Your task to perform on an android device: delete the emails in spam in the gmail app Image 0: 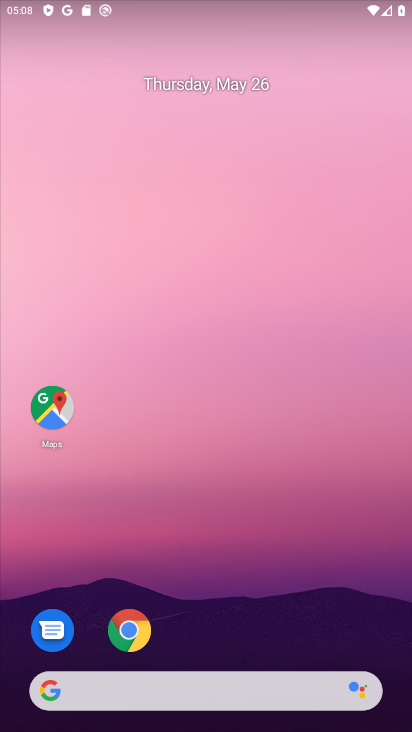
Step 0: drag from (182, 671) to (279, 166)
Your task to perform on an android device: delete the emails in spam in the gmail app Image 1: 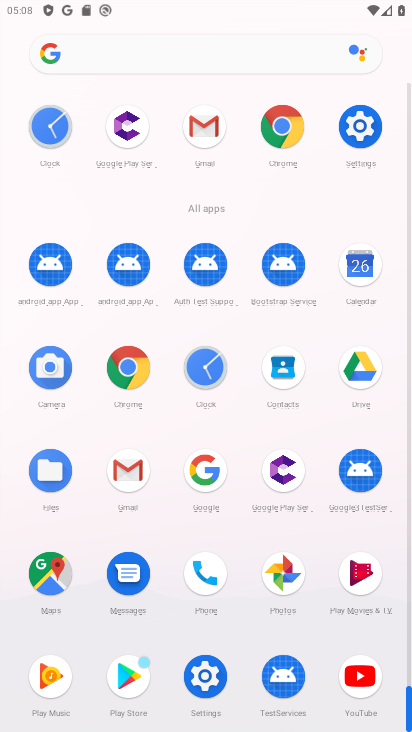
Step 1: click (117, 466)
Your task to perform on an android device: delete the emails in spam in the gmail app Image 2: 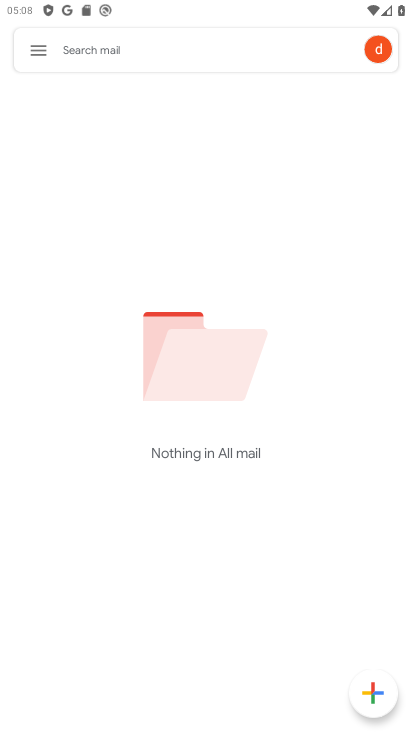
Step 2: click (43, 59)
Your task to perform on an android device: delete the emails in spam in the gmail app Image 3: 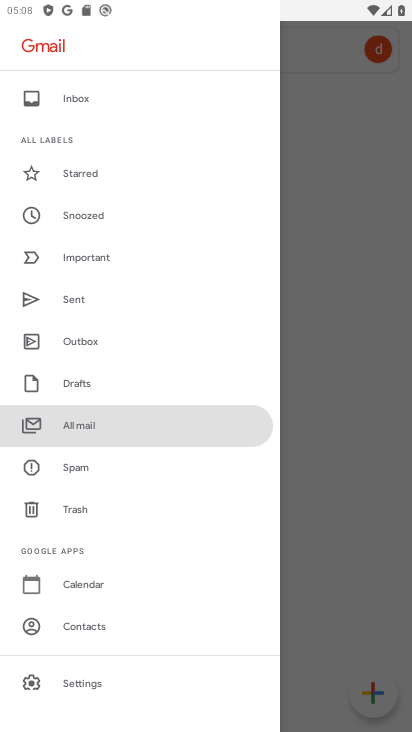
Step 3: click (101, 468)
Your task to perform on an android device: delete the emails in spam in the gmail app Image 4: 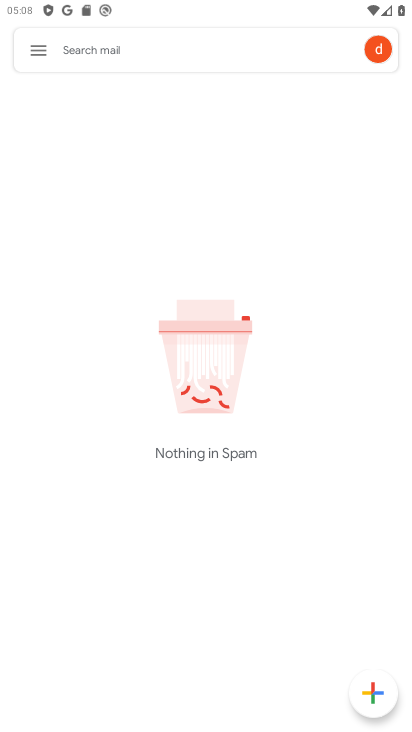
Step 4: task complete